Your task to perform on an android device: Search for custom wallets on etsy. Image 0: 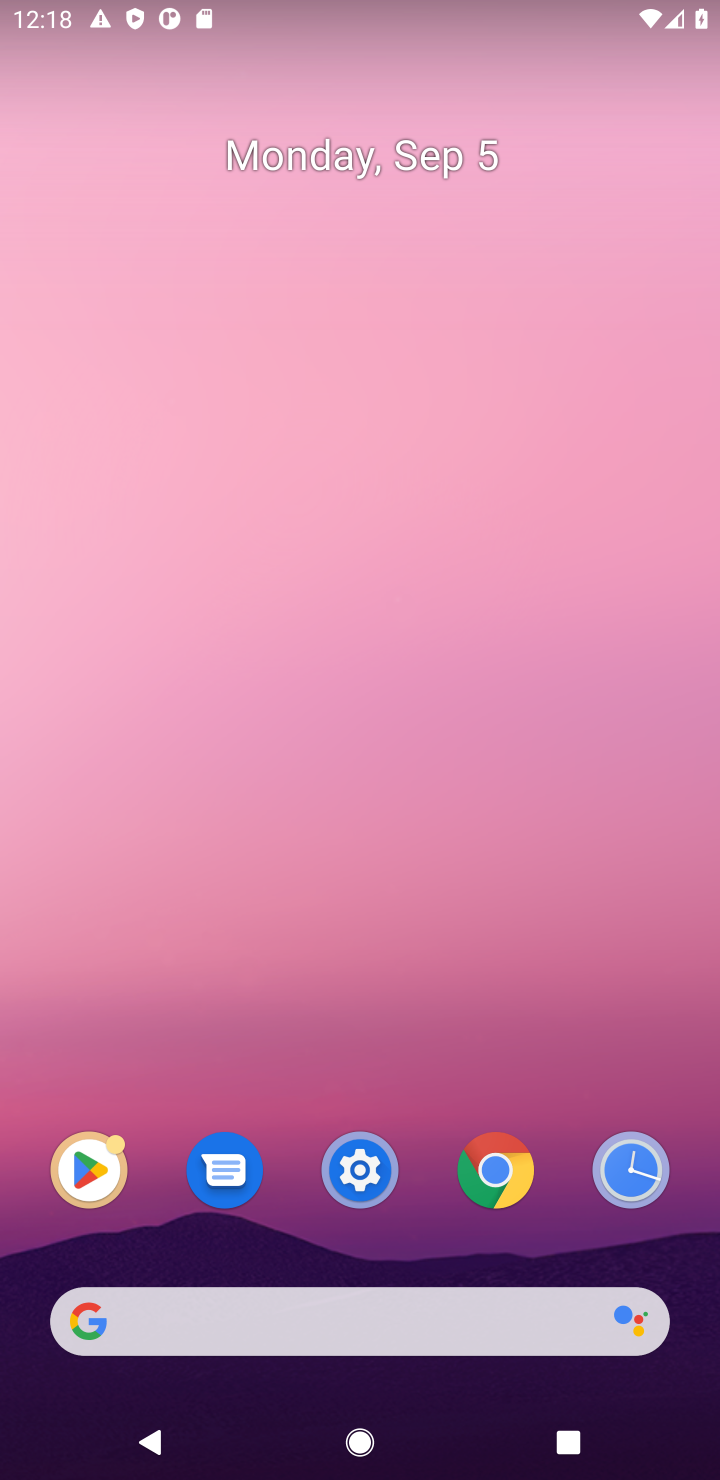
Step 0: click (389, 1338)
Your task to perform on an android device: Search for custom wallets on etsy. Image 1: 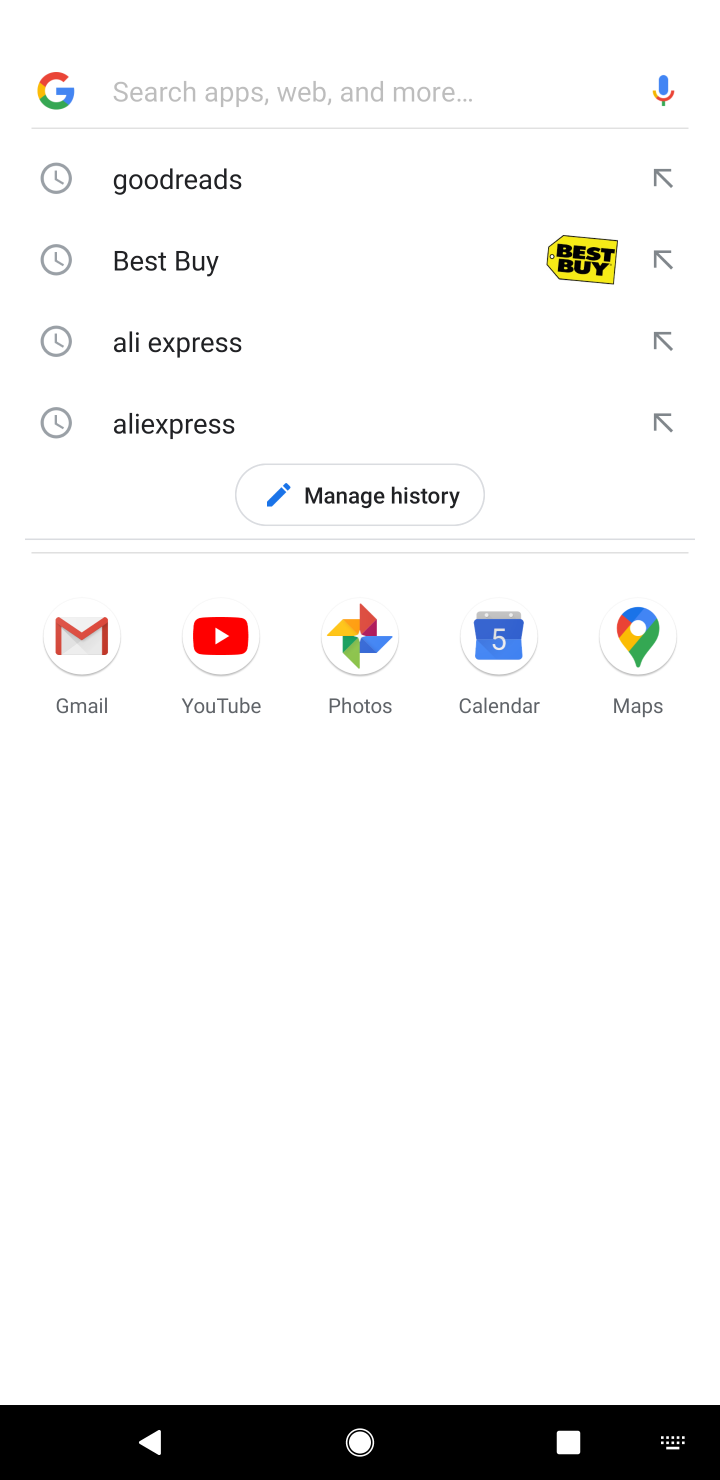
Step 1: type "etsy."
Your task to perform on an android device: Search for custom wallets on etsy. Image 2: 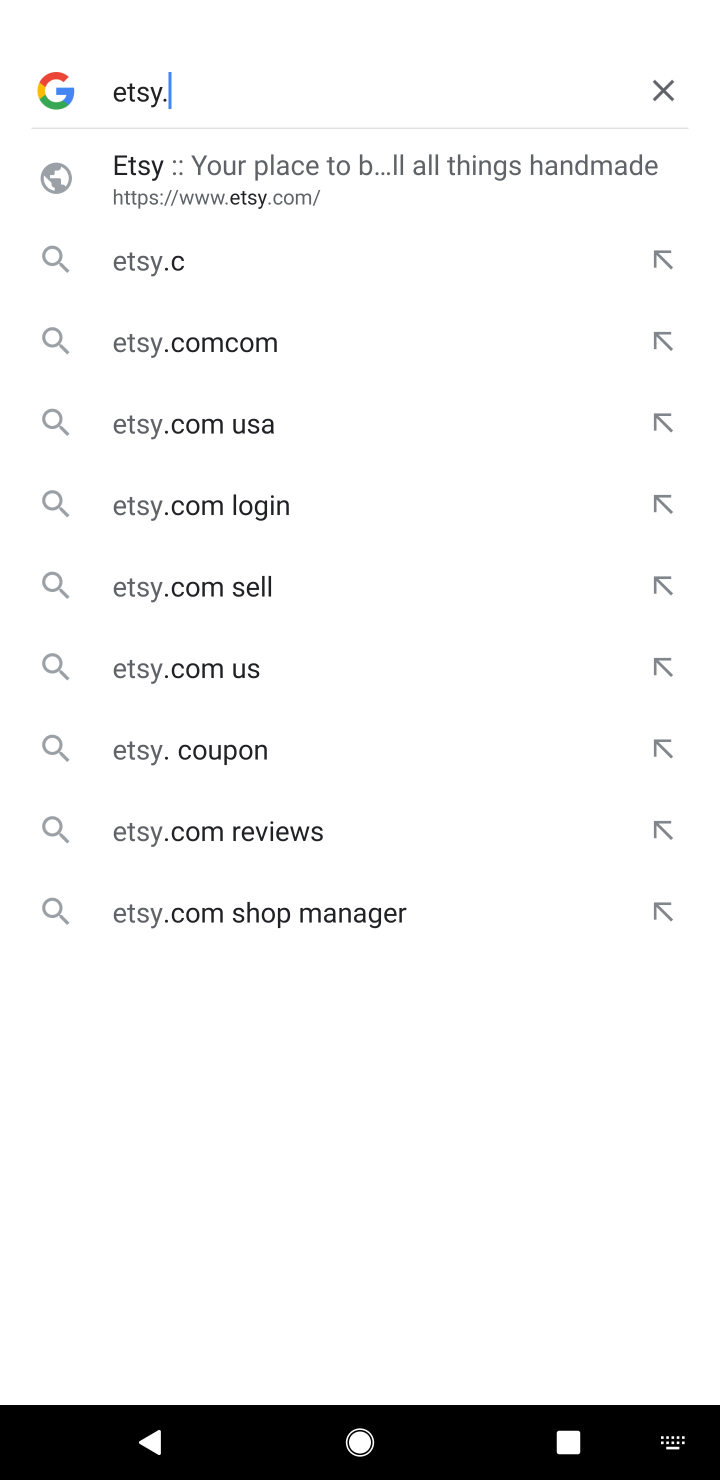
Step 2: click (228, 186)
Your task to perform on an android device: Search for custom wallets on etsy. Image 3: 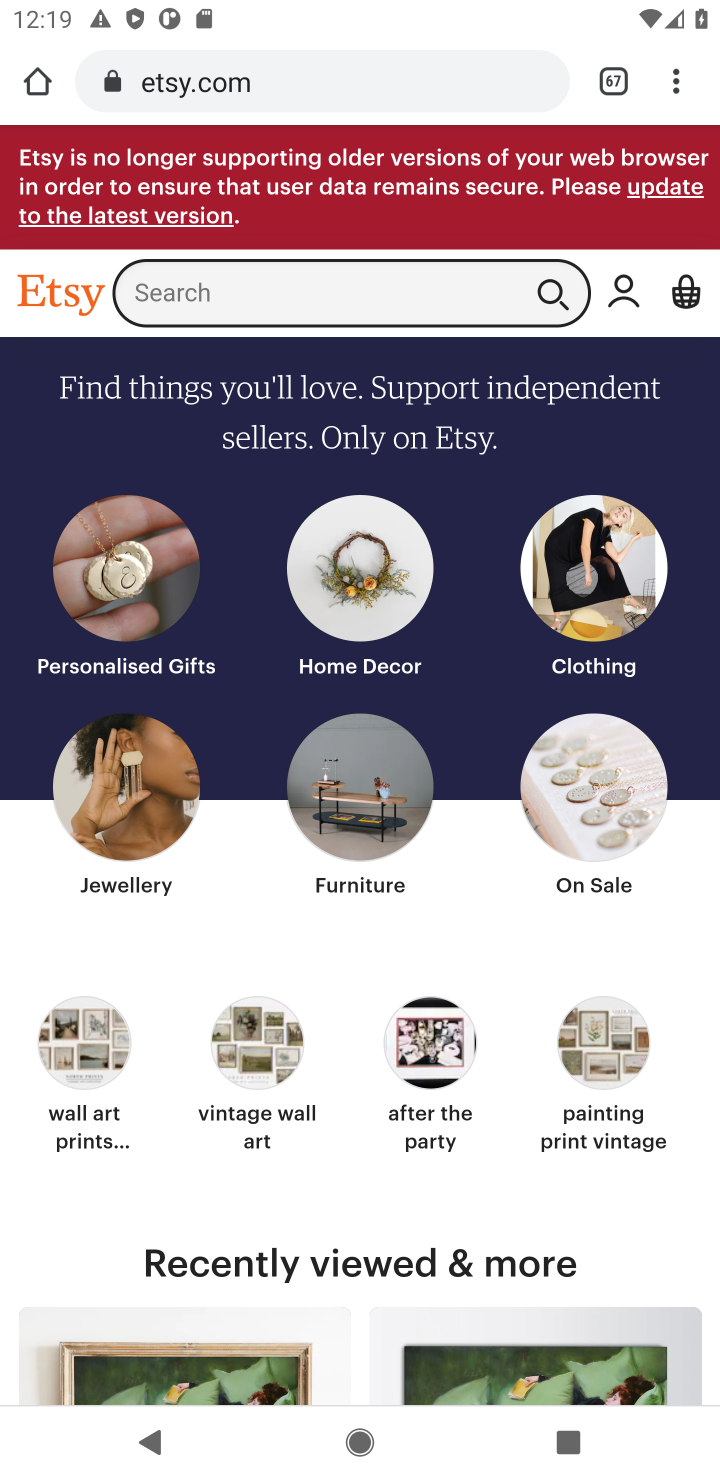
Step 3: type "custom wallets"
Your task to perform on an android device: Search for custom wallets on etsy. Image 4: 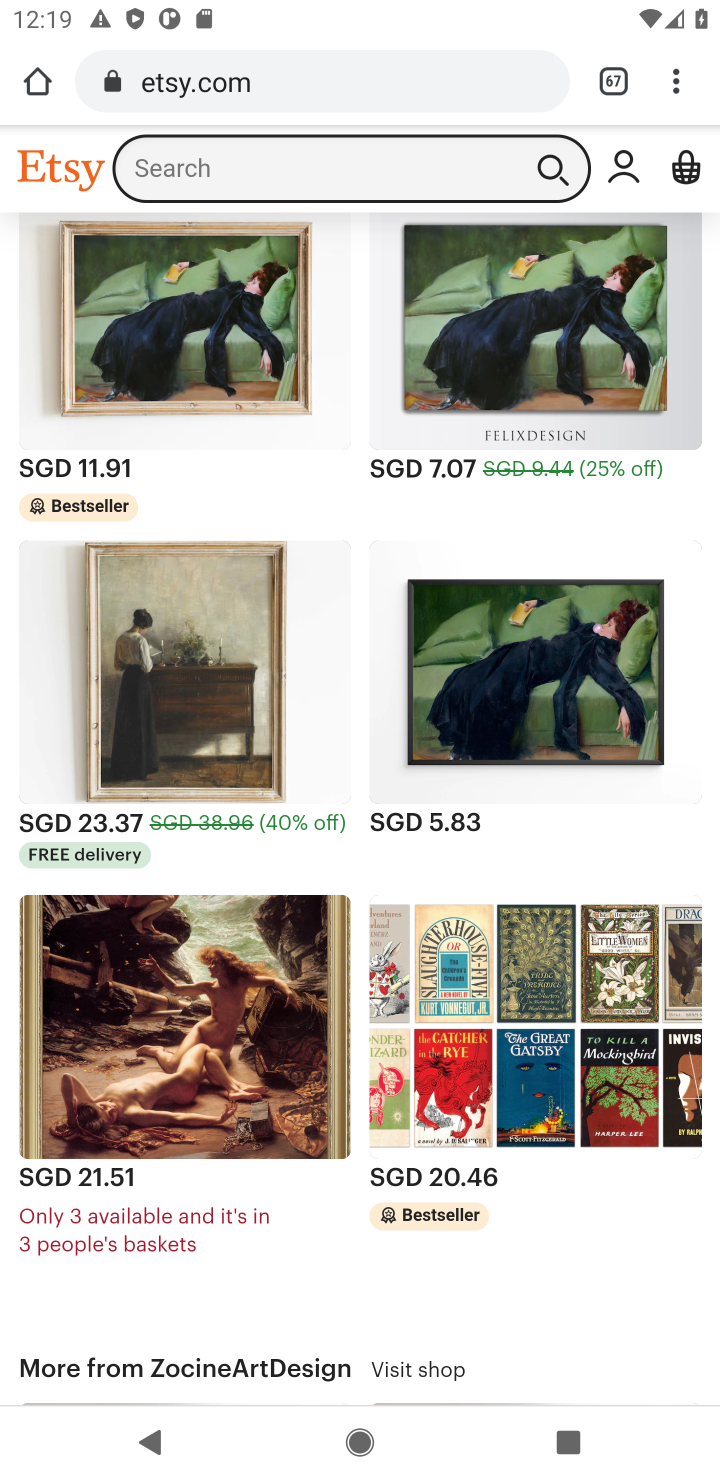
Step 4: task complete